Your task to perform on an android device: show emergency info Image 0: 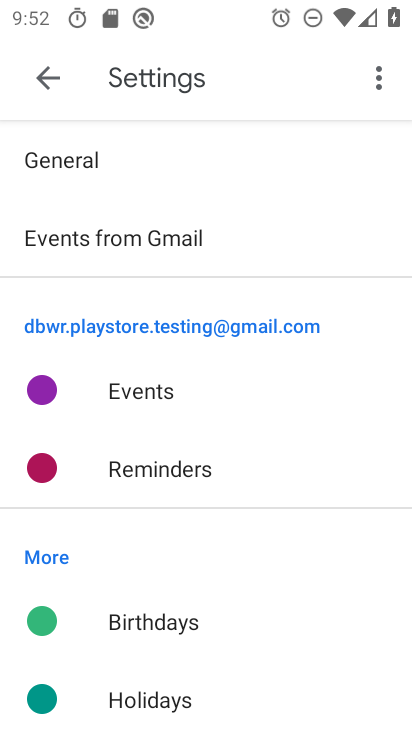
Step 0: press home button
Your task to perform on an android device: show emergency info Image 1: 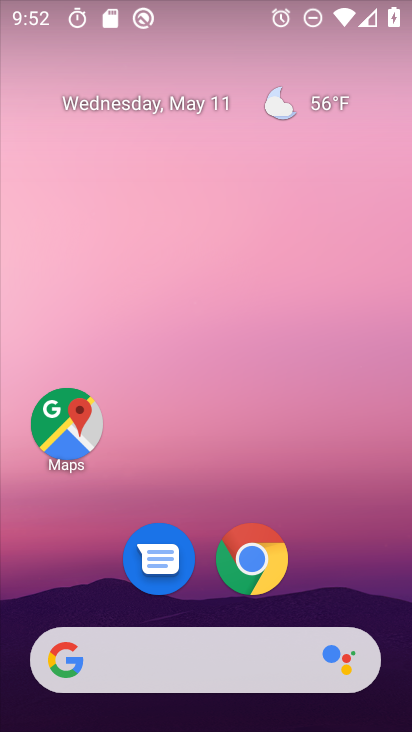
Step 1: drag from (292, 601) to (298, 275)
Your task to perform on an android device: show emergency info Image 2: 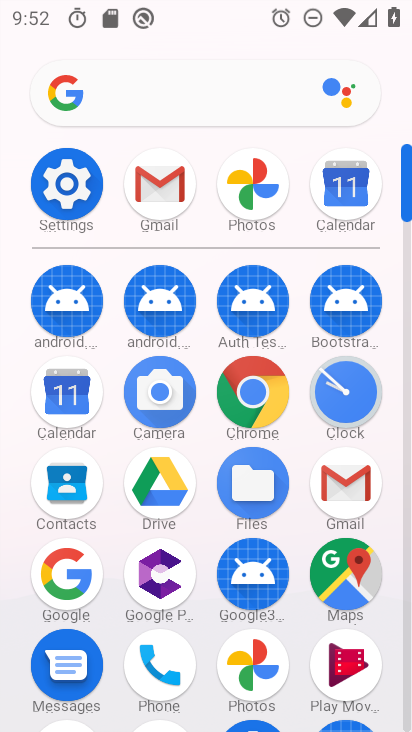
Step 2: click (73, 192)
Your task to perform on an android device: show emergency info Image 3: 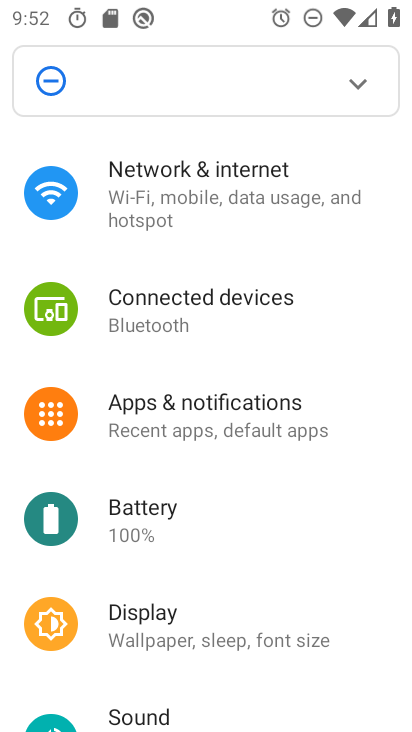
Step 3: drag from (244, 516) to (305, 133)
Your task to perform on an android device: show emergency info Image 4: 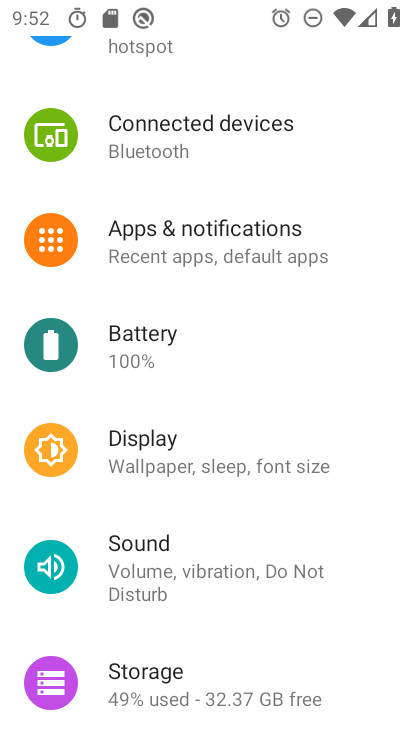
Step 4: drag from (245, 602) to (266, 246)
Your task to perform on an android device: show emergency info Image 5: 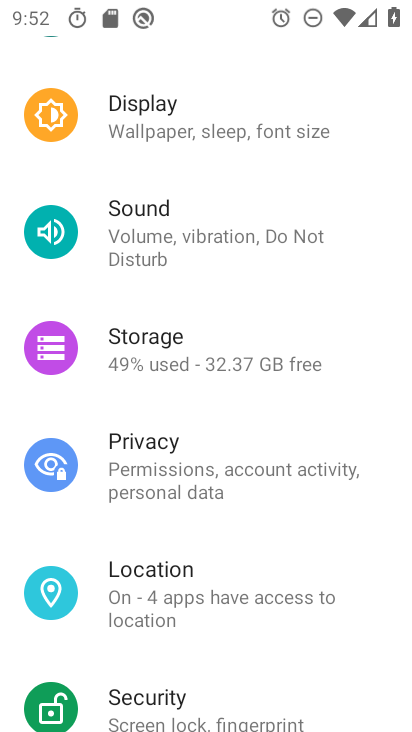
Step 5: drag from (207, 622) to (255, 331)
Your task to perform on an android device: show emergency info Image 6: 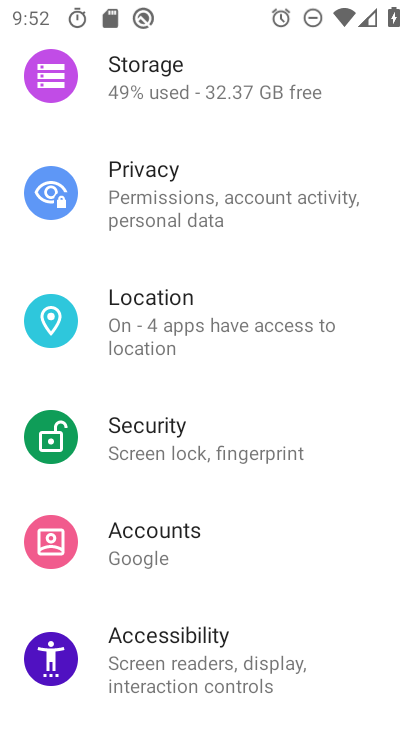
Step 6: drag from (291, 668) to (318, 286)
Your task to perform on an android device: show emergency info Image 7: 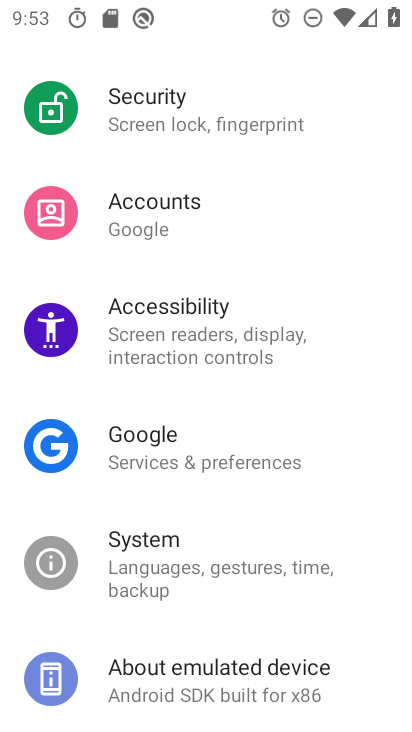
Step 7: drag from (239, 632) to (301, 181)
Your task to perform on an android device: show emergency info Image 8: 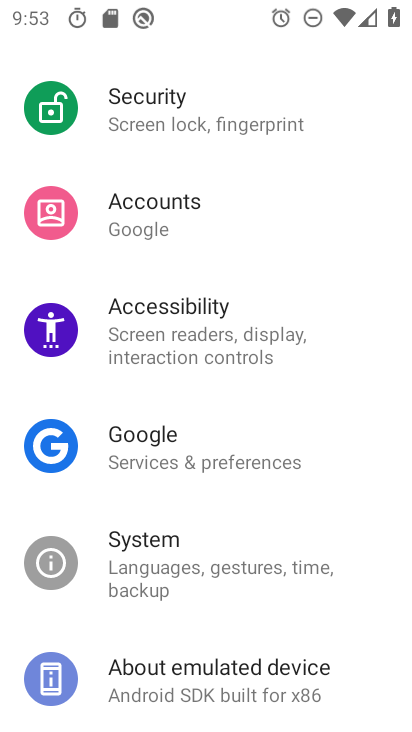
Step 8: drag from (287, 210) to (138, 720)
Your task to perform on an android device: show emergency info Image 9: 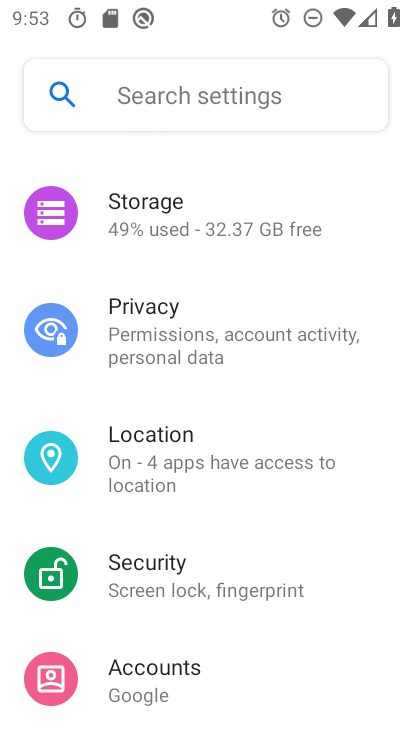
Step 9: drag from (277, 296) to (227, 710)
Your task to perform on an android device: show emergency info Image 10: 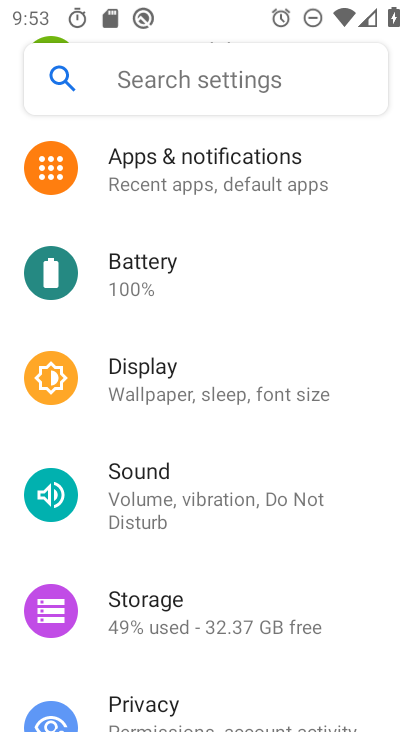
Step 10: drag from (336, 301) to (169, 638)
Your task to perform on an android device: show emergency info Image 11: 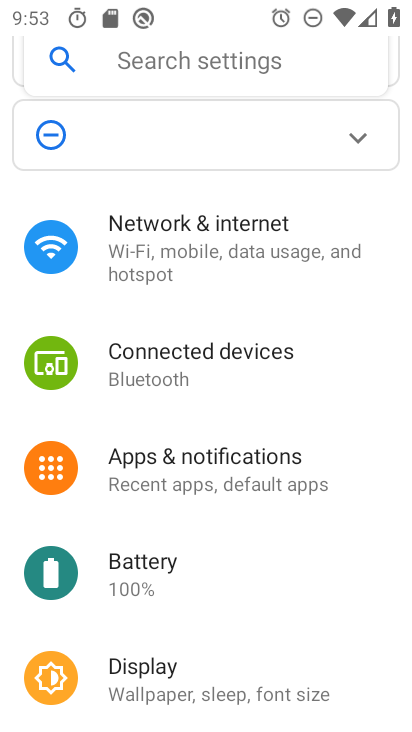
Step 11: press home button
Your task to perform on an android device: show emergency info Image 12: 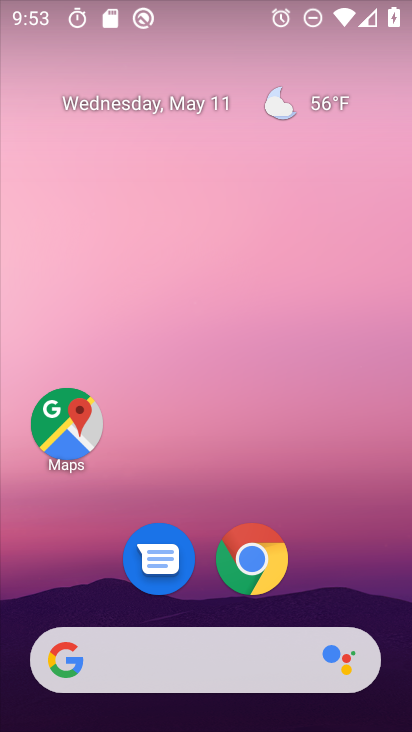
Step 12: click (171, 660)
Your task to perform on an android device: show emergency info Image 13: 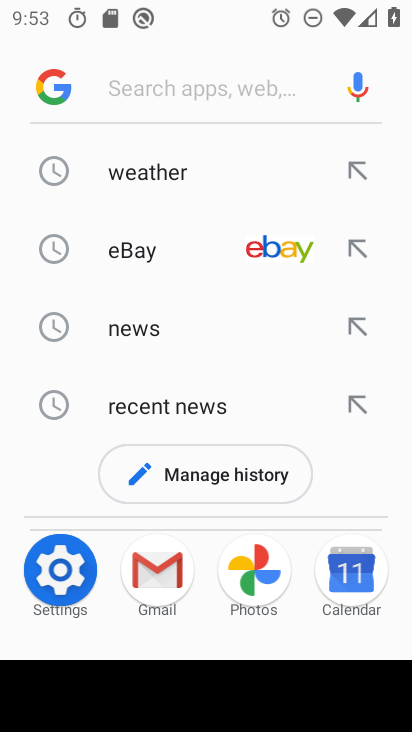
Step 13: click (165, 91)
Your task to perform on an android device: show emergency info Image 14: 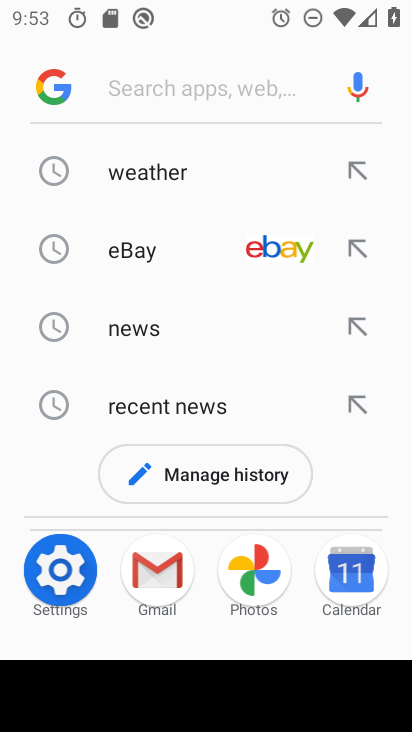
Step 14: click (197, 711)
Your task to perform on an android device: show emergency info Image 15: 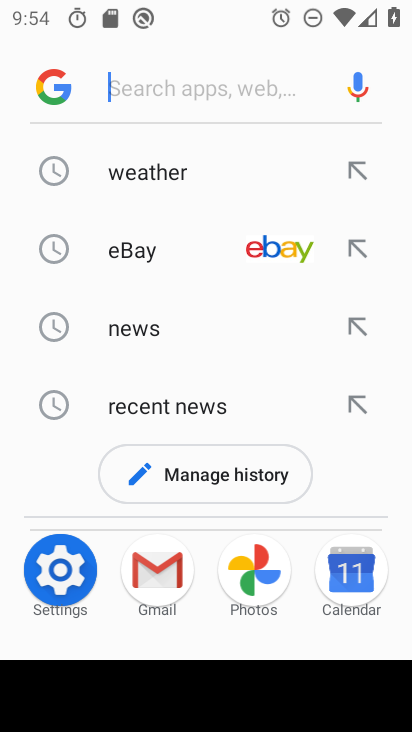
Step 15: type "how emergency info"
Your task to perform on an android device: show emergency info Image 16: 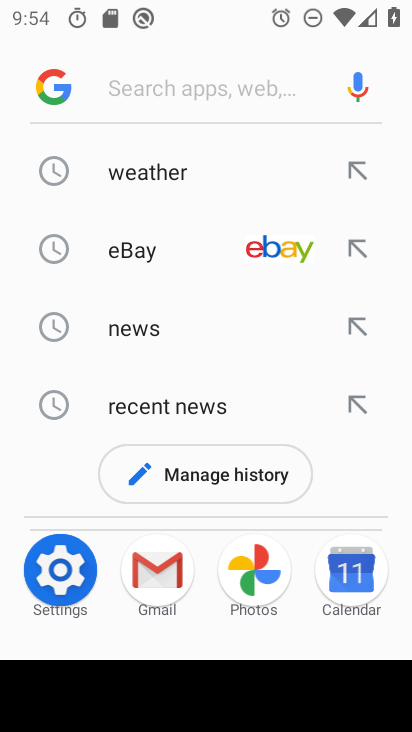
Step 16: drag from (182, 729) to (340, 332)
Your task to perform on an android device: show emergency info Image 17: 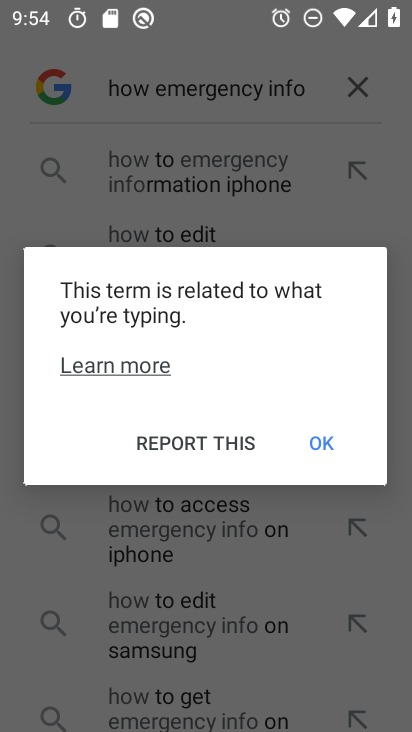
Step 17: click (328, 445)
Your task to perform on an android device: show emergency info Image 18: 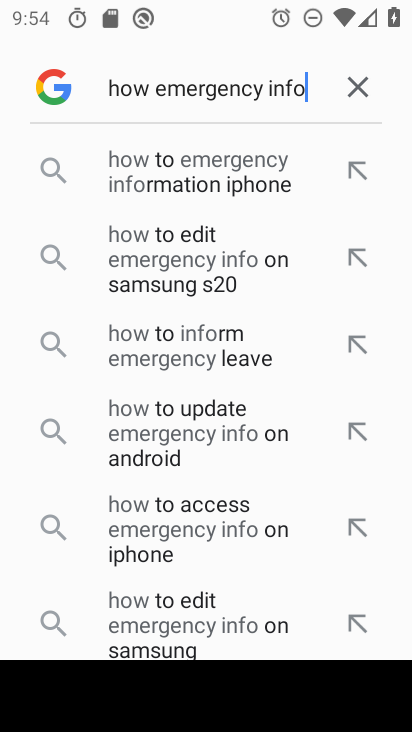
Step 18: click (192, 158)
Your task to perform on an android device: show emergency info Image 19: 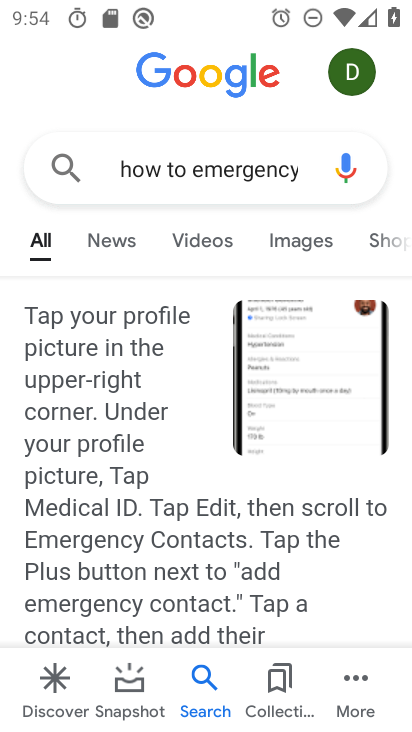
Step 19: drag from (200, 724) to (221, 533)
Your task to perform on an android device: show emergency info Image 20: 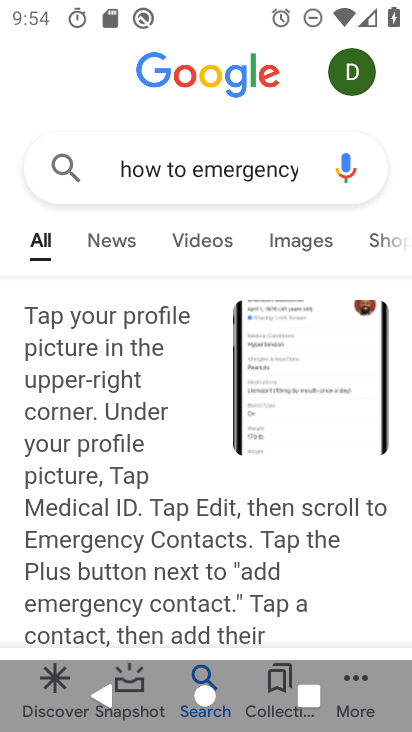
Step 20: drag from (252, 622) to (281, 431)
Your task to perform on an android device: show emergency info Image 21: 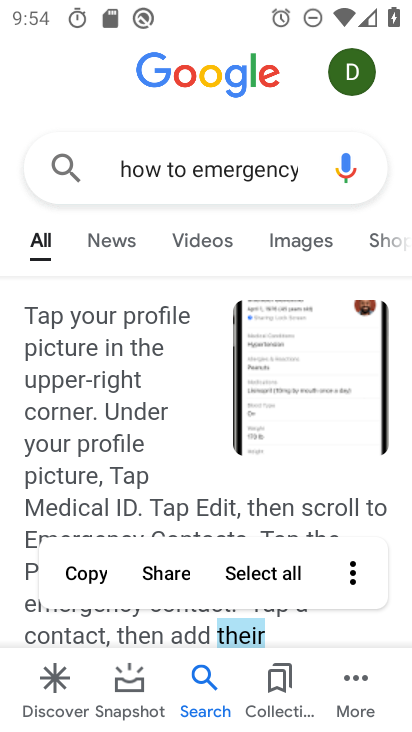
Step 21: drag from (300, 514) to (323, 290)
Your task to perform on an android device: show emergency info Image 22: 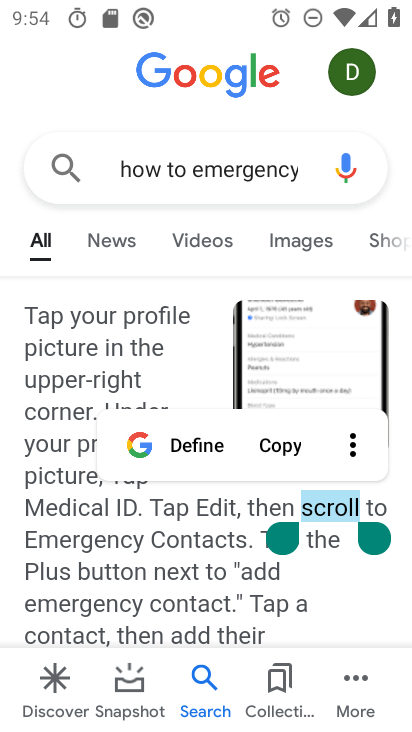
Step 22: click (281, 157)
Your task to perform on an android device: show emergency info Image 23: 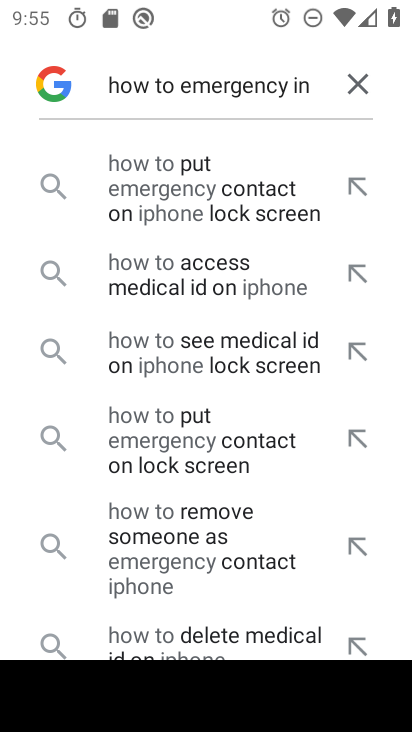
Step 23: task complete